Your task to perform on an android device: Go to sound settings Image 0: 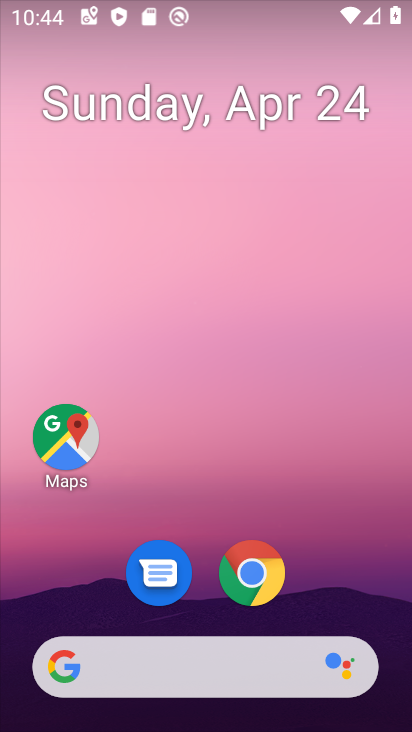
Step 0: drag from (317, 578) to (340, 62)
Your task to perform on an android device: Go to sound settings Image 1: 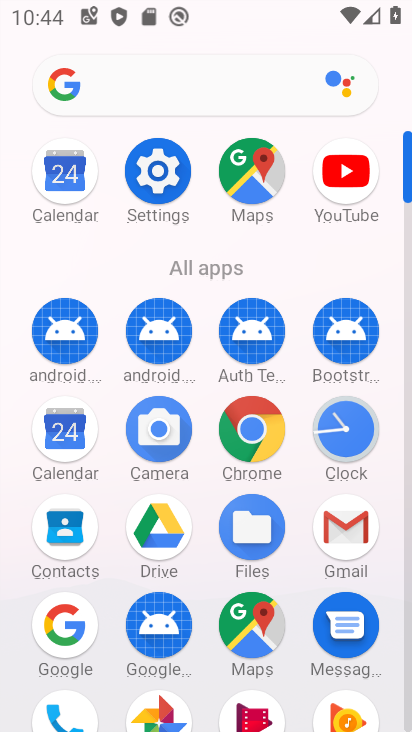
Step 1: click (176, 183)
Your task to perform on an android device: Go to sound settings Image 2: 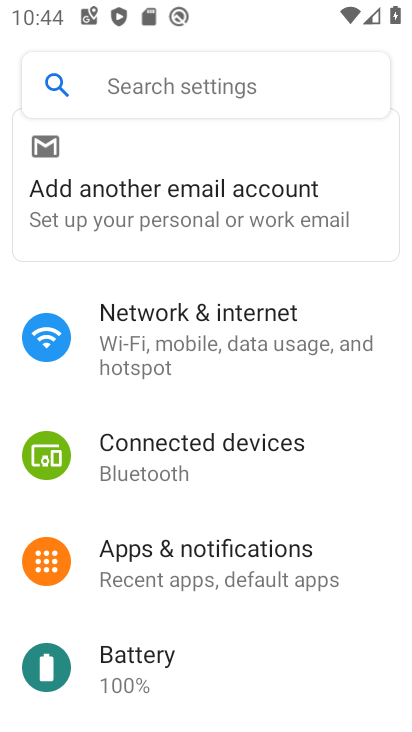
Step 2: drag from (212, 510) to (207, 400)
Your task to perform on an android device: Go to sound settings Image 3: 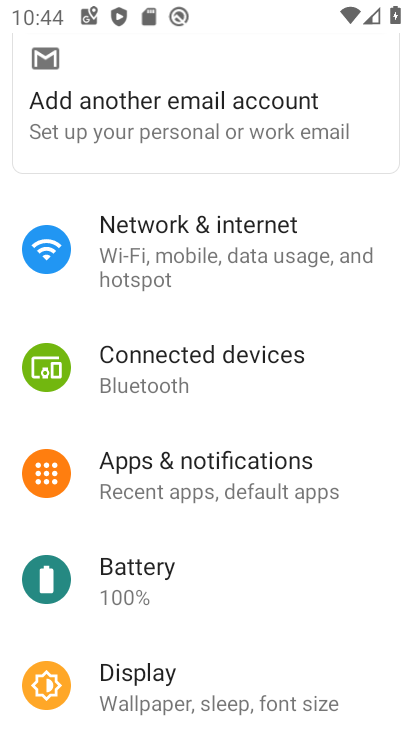
Step 3: drag from (186, 510) to (188, 427)
Your task to perform on an android device: Go to sound settings Image 4: 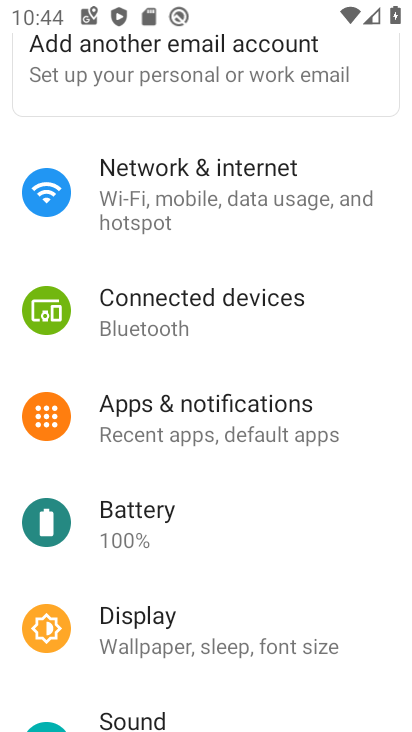
Step 4: drag from (181, 540) to (204, 455)
Your task to perform on an android device: Go to sound settings Image 5: 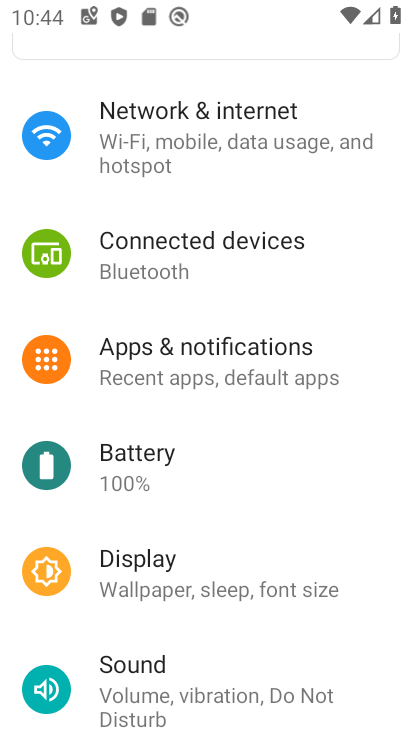
Step 5: drag from (170, 589) to (164, 474)
Your task to perform on an android device: Go to sound settings Image 6: 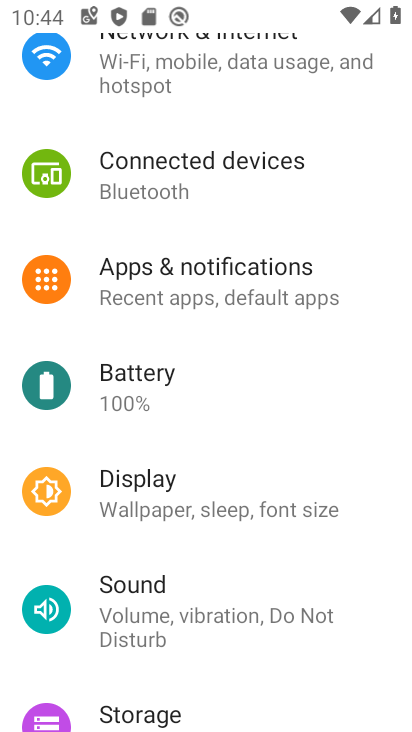
Step 6: drag from (212, 561) to (211, 489)
Your task to perform on an android device: Go to sound settings Image 7: 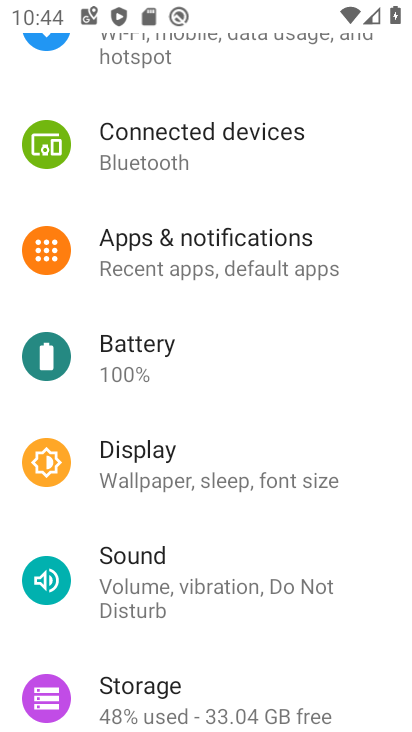
Step 7: drag from (197, 576) to (177, 494)
Your task to perform on an android device: Go to sound settings Image 8: 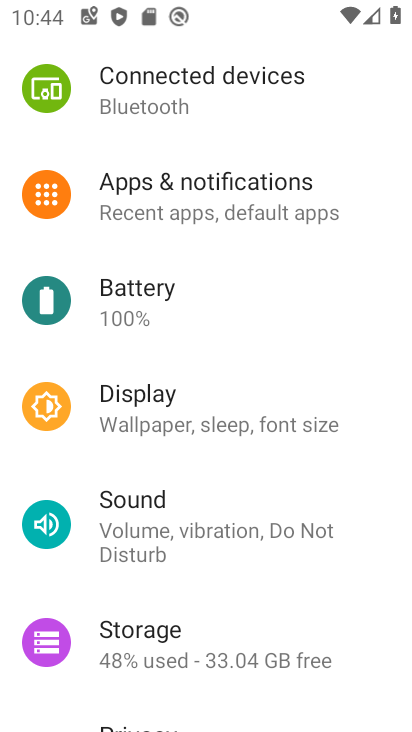
Step 8: drag from (198, 559) to (198, 470)
Your task to perform on an android device: Go to sound settings Image 9: 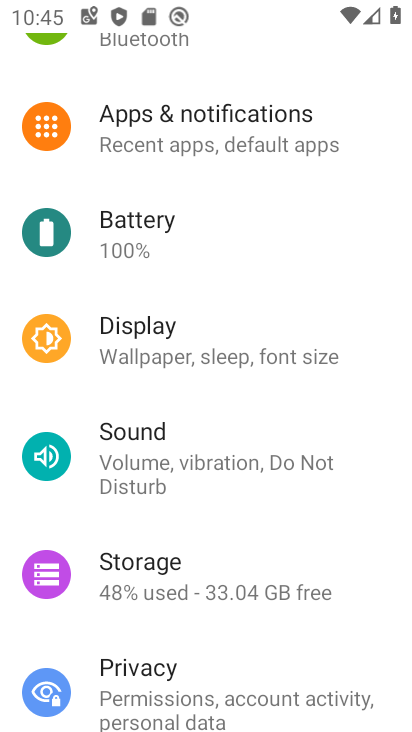
Step 9: click (179, 487)
Your task to perform on an android device: Go to sound settings Image 10: 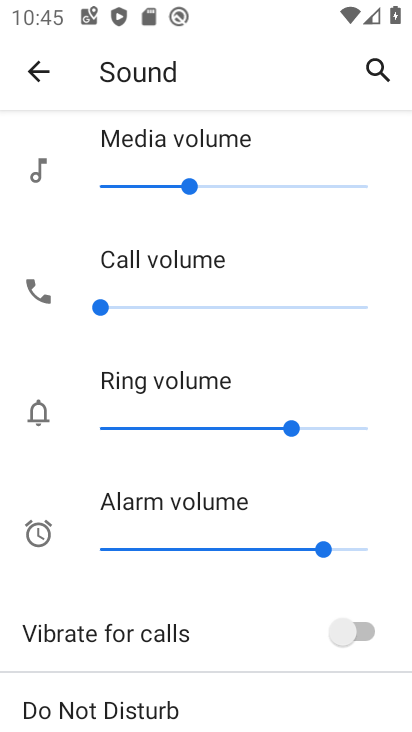
Step 10: task complete